Your task to perform on an android device: make emails show in primary in the gmail app Image 0: 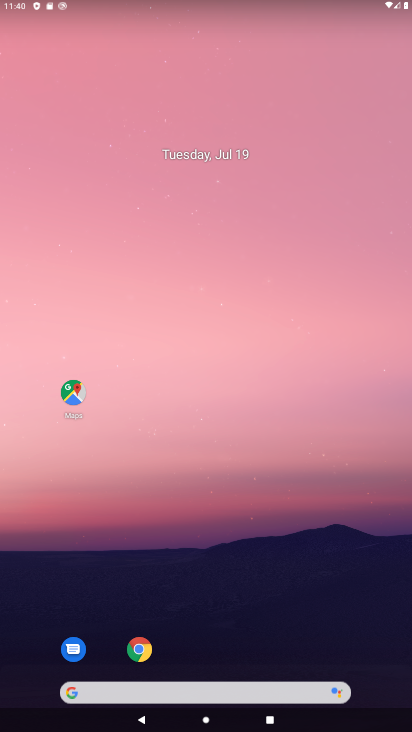
Step 0: drag from (183, 637) to (186, 66)
Your task to perform on an android device: make emails show in primary in the gmail app Image 1: 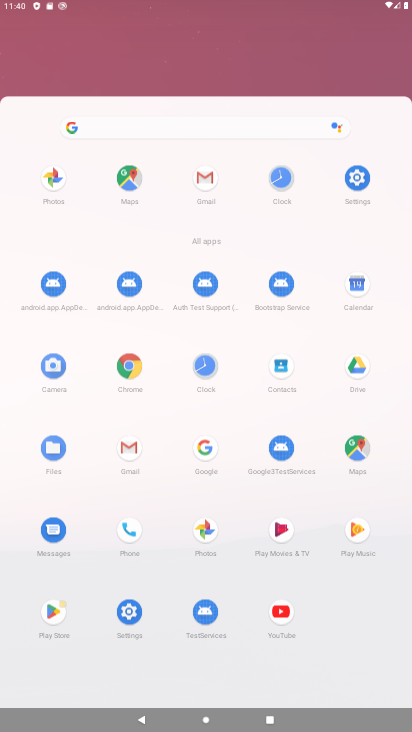
Step 1: drag from (242, 517) to (178, 16)
Your task to perform on an android device: make emails show in primary in the gmail app Image 2: 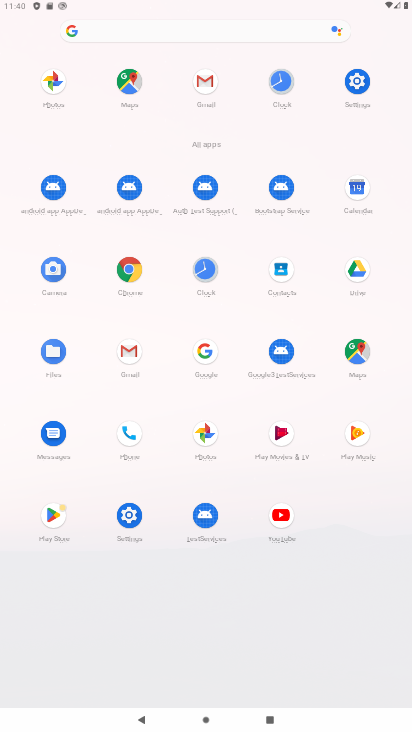
Step 2: click (347, 77)
Your task to perform on an android device: make emails show in primary in the gmail app Image 3: 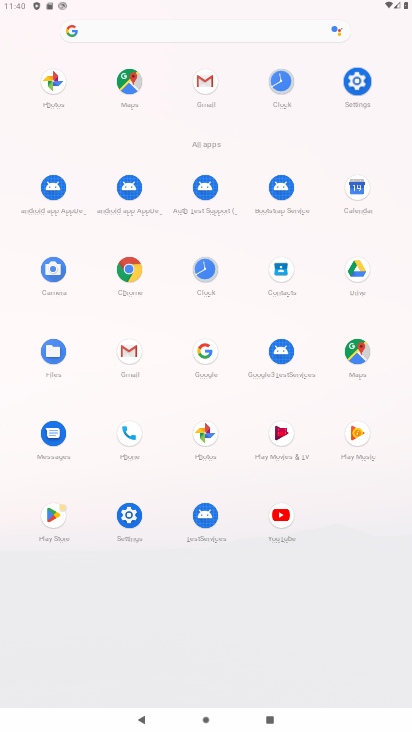
Step 3: click (352, 80)
Your task to perform on an android device: make emails show in primary in the gmail app Image 4: 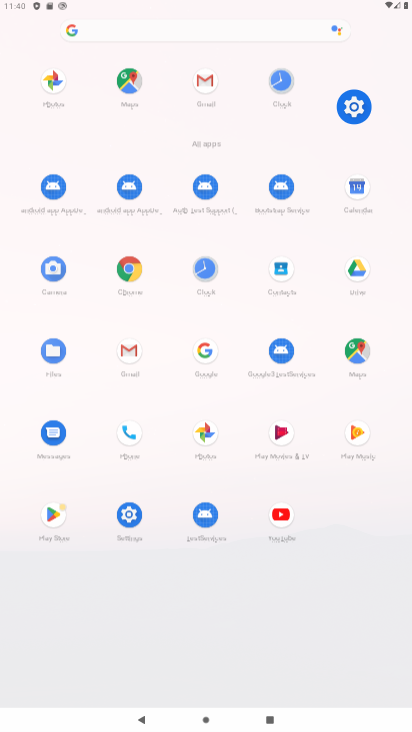
Step 4: click (352, 81)
Your task to perform on an android device: make emails show in primary in the gmail app Image 5: 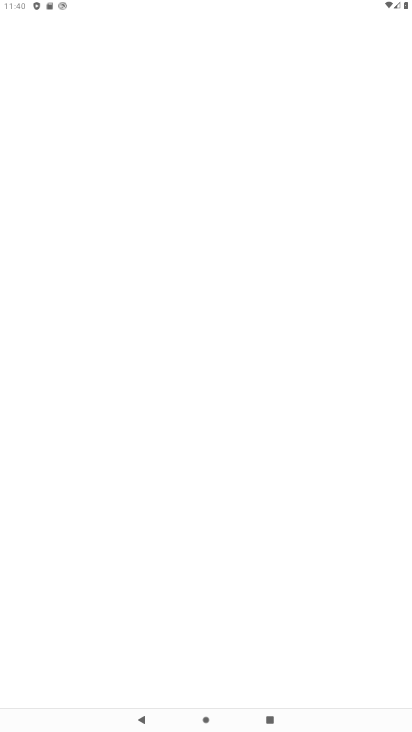
Step 5: click (355, 85)
Your task to perform on an android device: make emails show in primary in the gmail app Image 6: 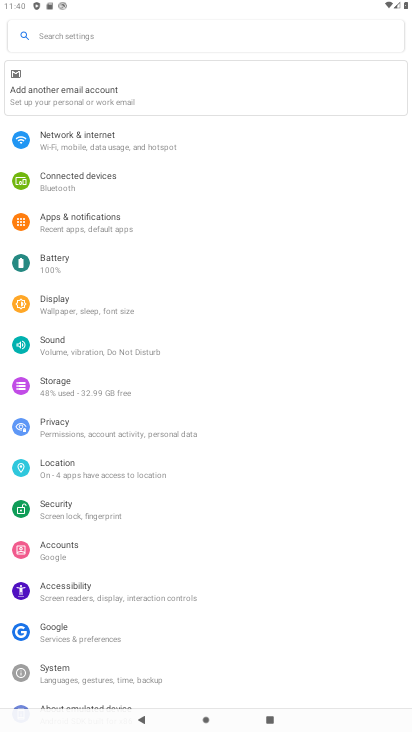
Step 6: click (64, 310)
Your task to perform on an android device: make emails show in primary in the gmail app Image 7: 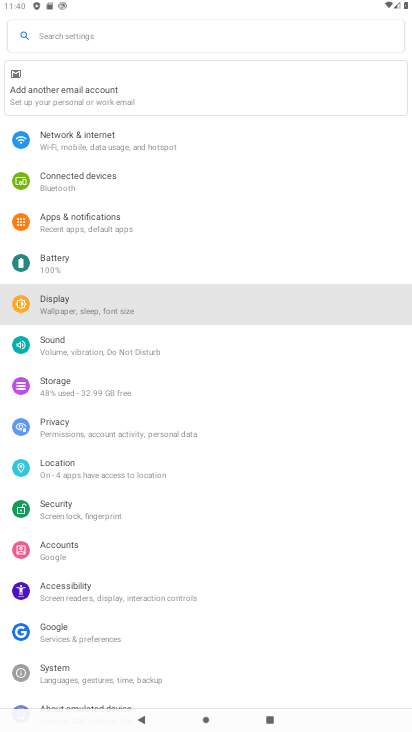
Step 7: click (65, 309)
Your task to perform on an android device: make emails show in primary in the gmail app Image 8: 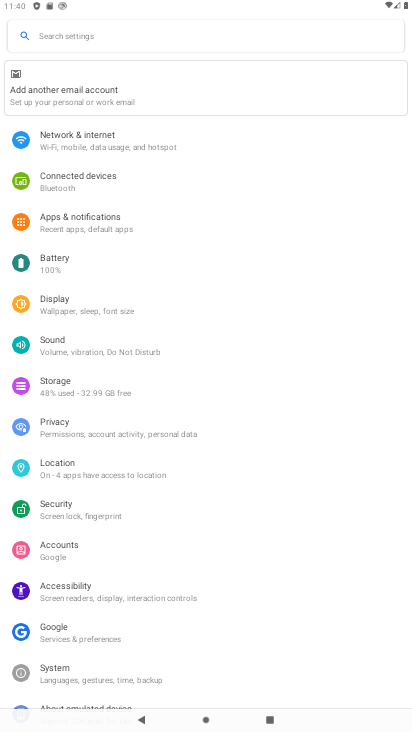
Step 8: click (65, 309)
Your task to perform on an android device: make emails show in primary in the gmail app Image 9: 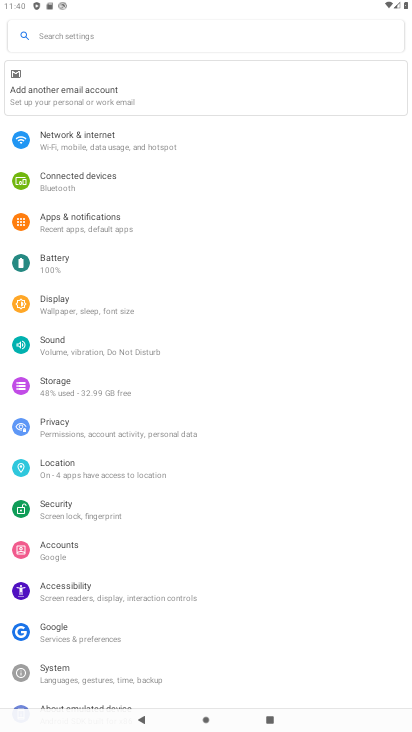
Step 9: click (63, 308)
Your task to perform on an android device: make emails show in primary in the gmail app Image 10: 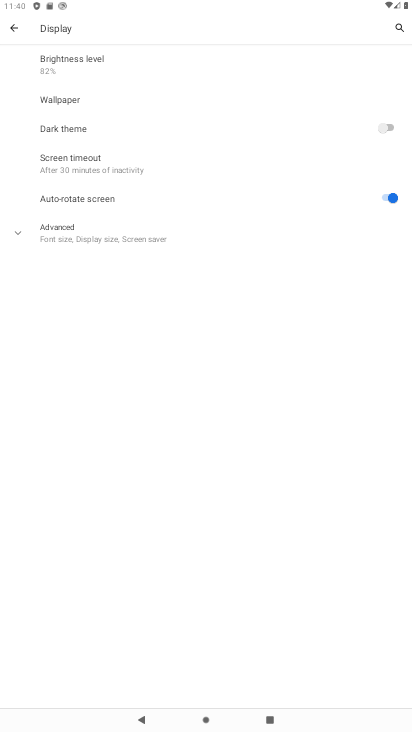
Step 10: click (54, 232)
Your task to perform on an android device: make emails show in primary in the gmail app Image 11: 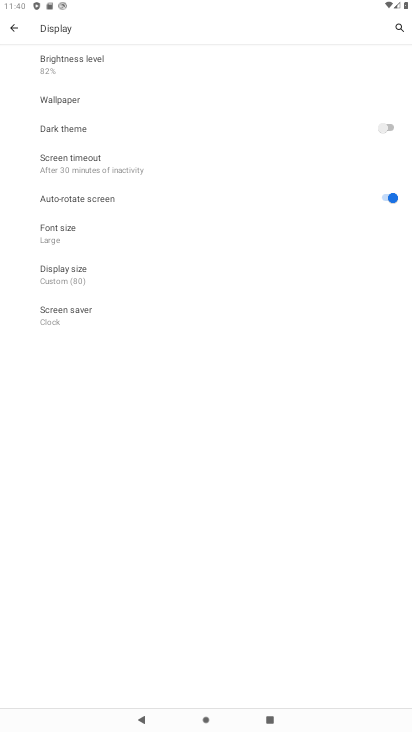
Step 11: click (54, 229)
Your task to perform on an android device: make emails show in primary in the gmail app Image 12: 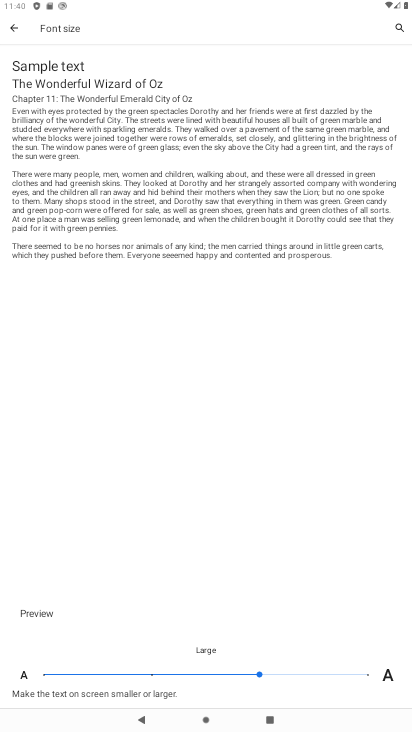
Step 12: click (367, 677)
Your task to perform on an android device: make emails show in primary in the gmail app Image 13: 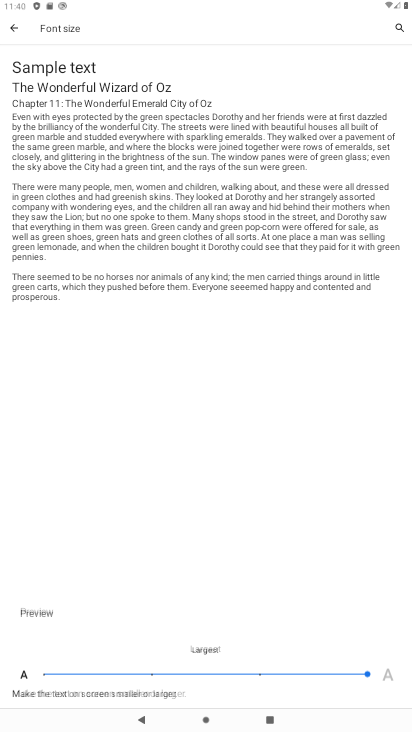
Step 13: click (367, 677)
Your task to perform on an android device: make emails show in primary in the gmail app Image 14: 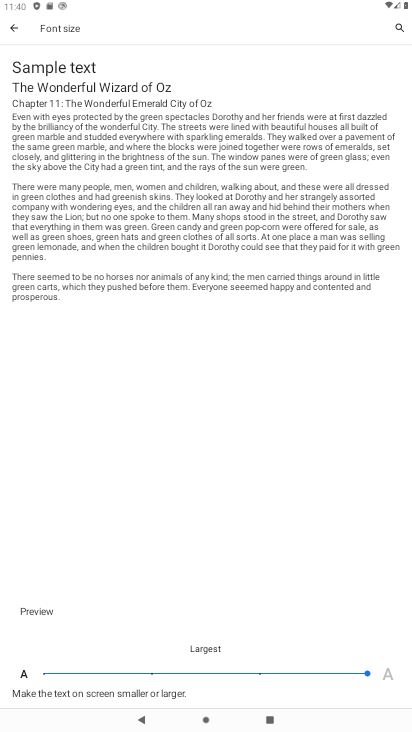
Step 14: click (367, 677)
Your task to perform on an android device: make emails show in primary in the gmail app Image 15: 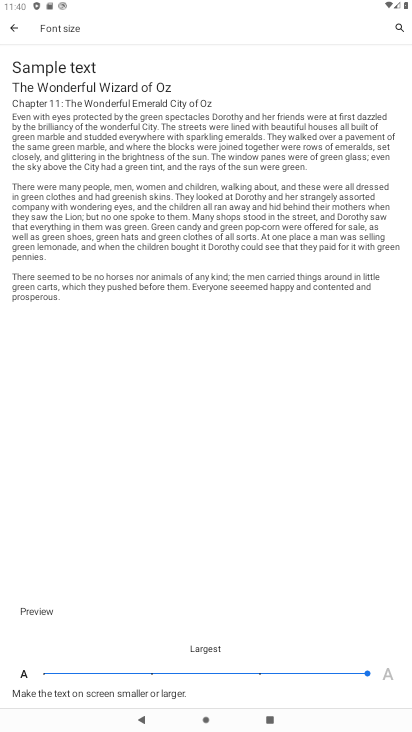
Step 15: click (367, 677)
Your task to perform on an android device: make emails show in primary in the gmail app Image 16: 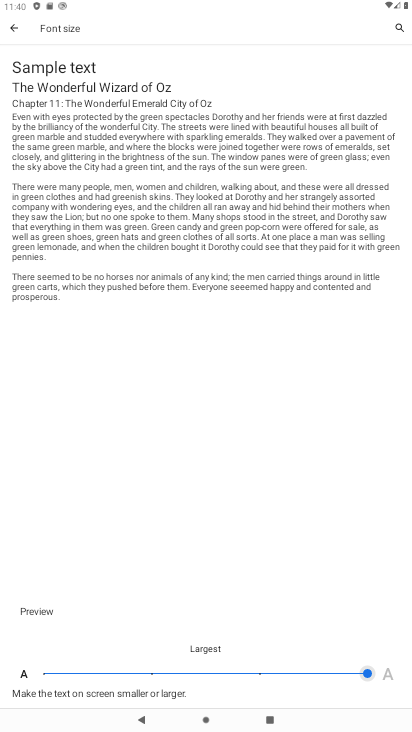
Step 16: click (360, 668)
Your task to perform on an android device: make emails show in primary in the gmail app Image 17: 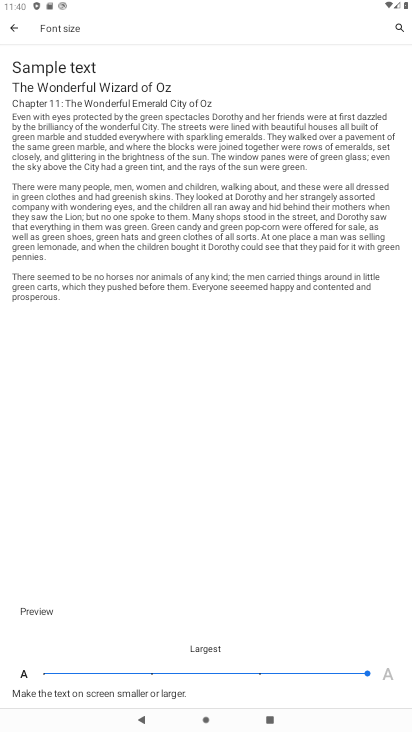
Step 17: click (368, 674)
Your task to perform on an android device: make emails show in primary in the gmail app Image 18: 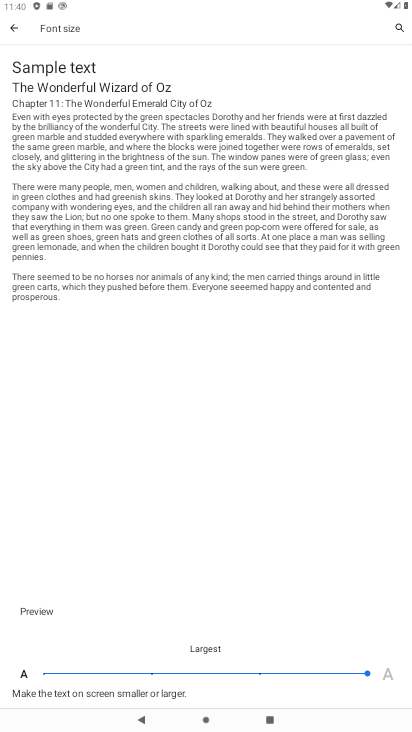
Step 18: click (368, 674)
Your task to perform on an android device: make emails show in primary in the gmail app Image 19: 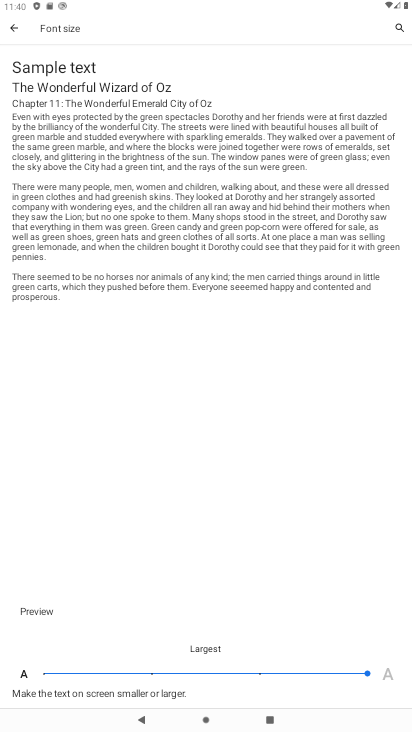
Step 19: click (368, 674)
Your task to perform on an android device: make emails show in primary in the gmail app Image 20: 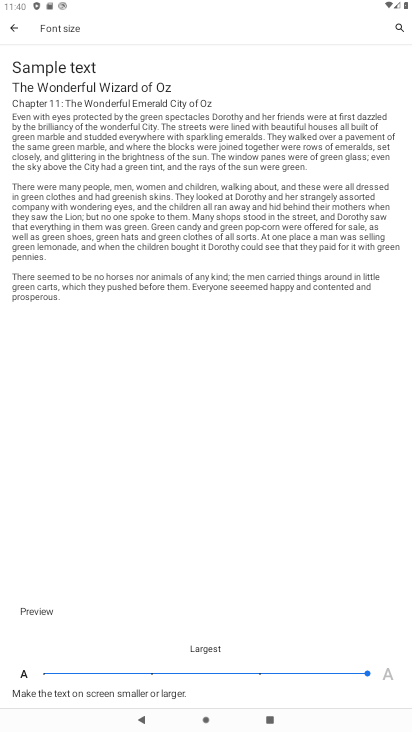
Step 20: click (370, 673)
Your task to perform on an android device: make emails show in primary in the gmail app Image 21: 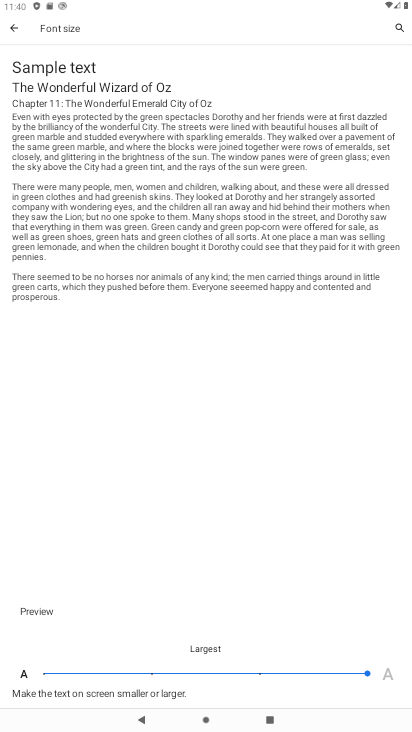
Step 21: click (383, 673)
Your task to perform on an android device: make emails show in primary in the gmail app Image 22: 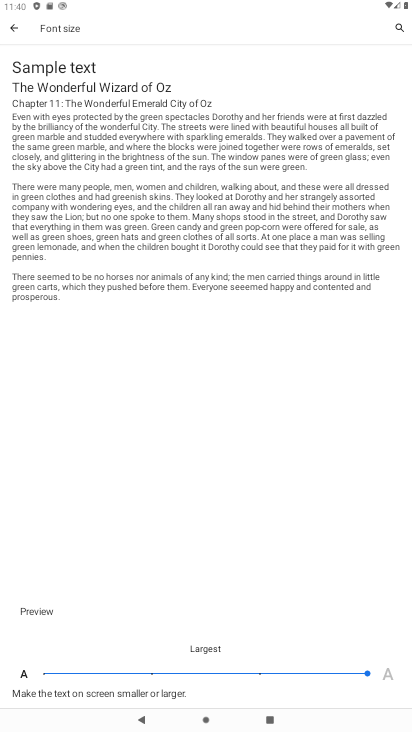
Step 22: click (9, 28)
Your task to perform on an android device: make emails show in primary in the gmail app Image 23: 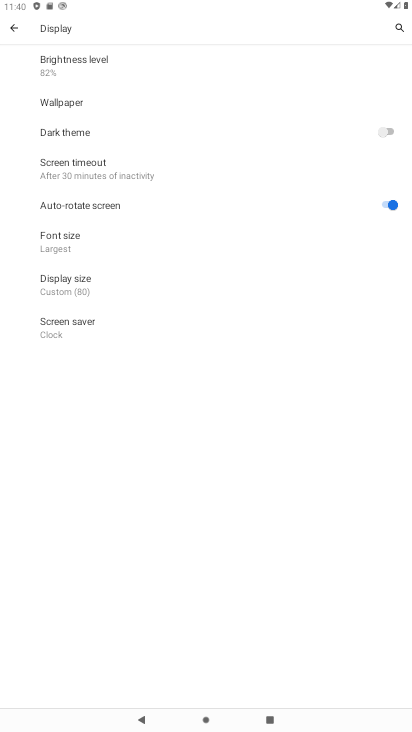
Step 23: click (11, 23)
Your task to perform on an android device: make emails show in primary in the gmail app Image 24: 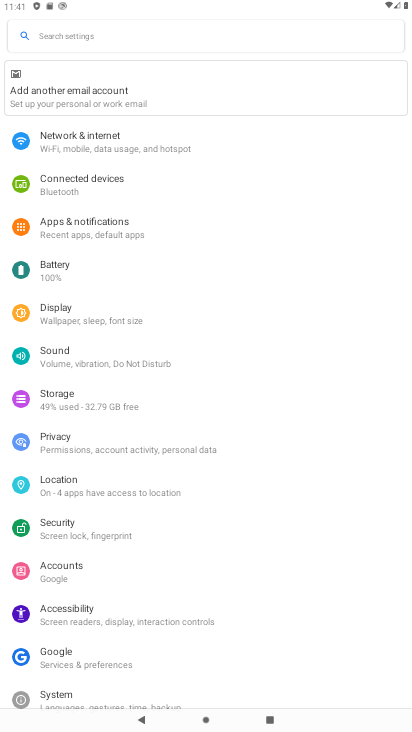
Step 24: press back button
Your task to perform on an android device: make emails show in primary in the gmail app Image 25: 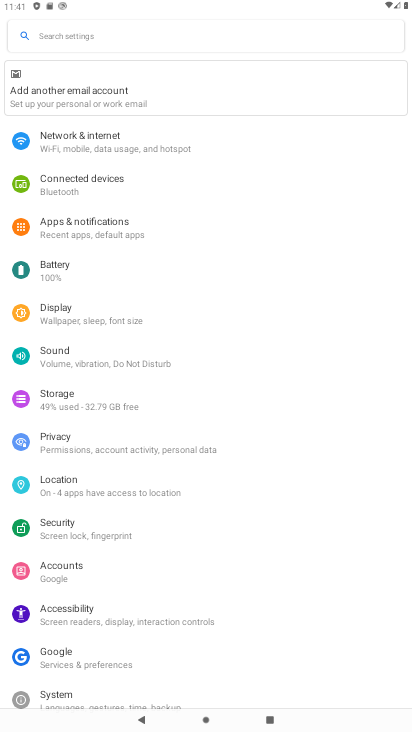
Step 25: press back button
Your task to perform on an android device: make emails show in primary in the gmail app Image 26: 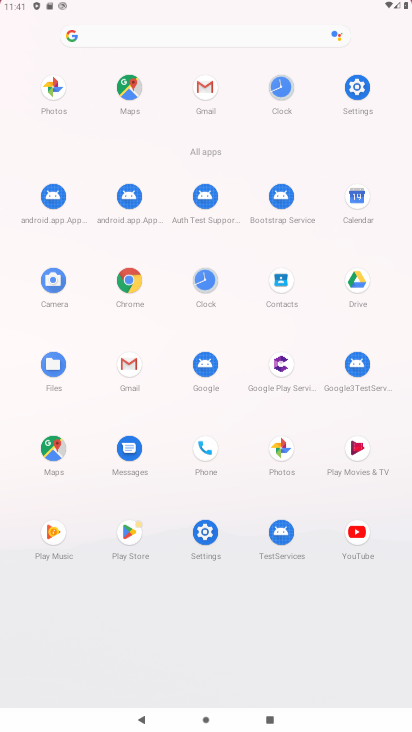
Step 26: press back button
Your task to perform on an android device: make emails show in primary in the gmail app Image 27: 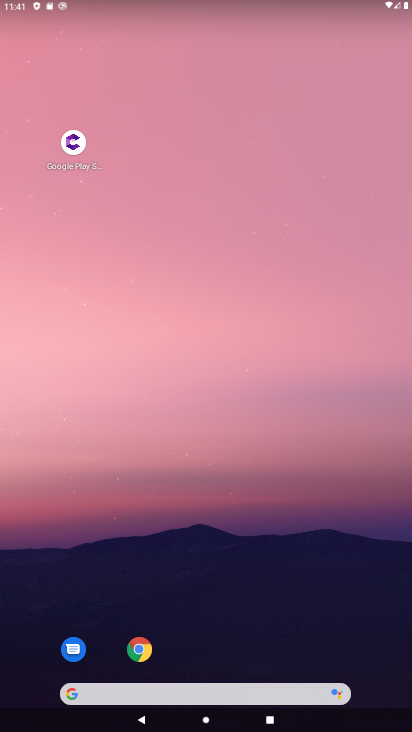
Step 27: press back button
Your task to perform on an android device: make emails show in primary in the gmail app Image 28: 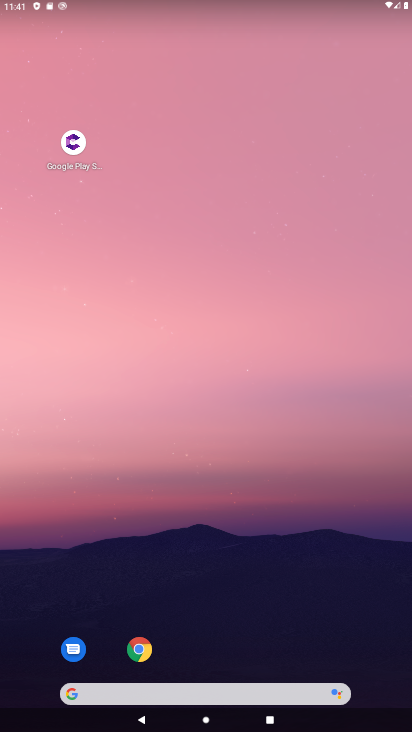
Step 28: drag from (203, 648) to (164, 277)
Your task to perform on an android device: make emails show in primary in the gmail app Image 29: 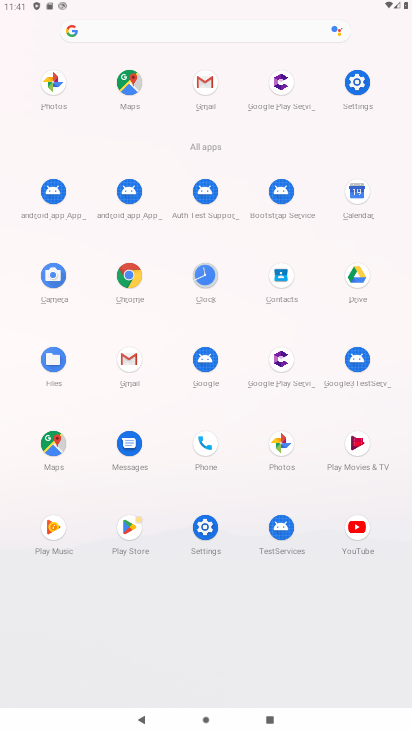
Step 29: click (128, 359)
Your task to perform on an android device: make emails show in primary in the gmail app Image 30: 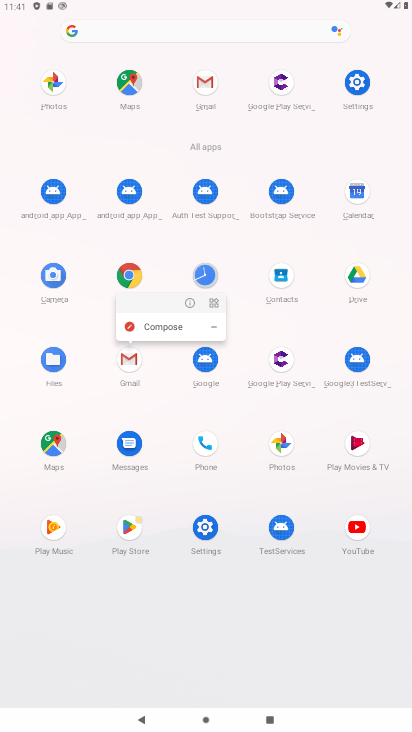
Step 30: click (128, 359)
Your task to perform on an android device: make emails show in primary in the gmail app Image 31: 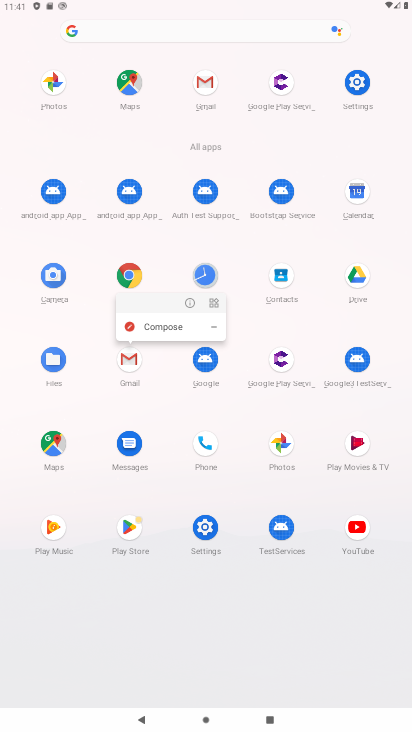
Step 31: click (132, 359)
Your task to perform on an android device: make emails show in primary in the gmail app Image 32: 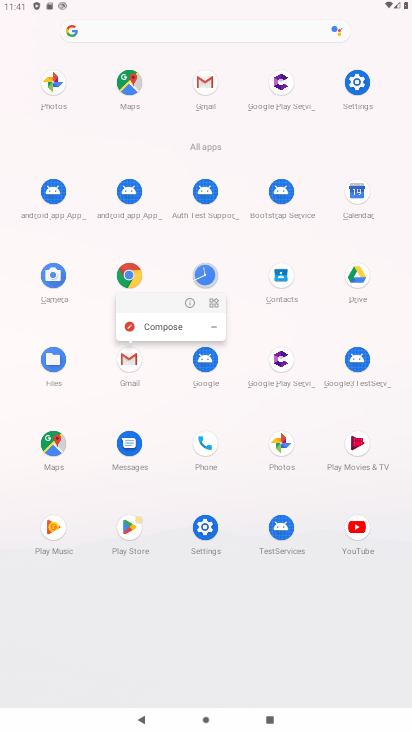
Step 32: click (126, 356)
Your task to perform on an android device: make emails show in primary in the gmail app Image 33: 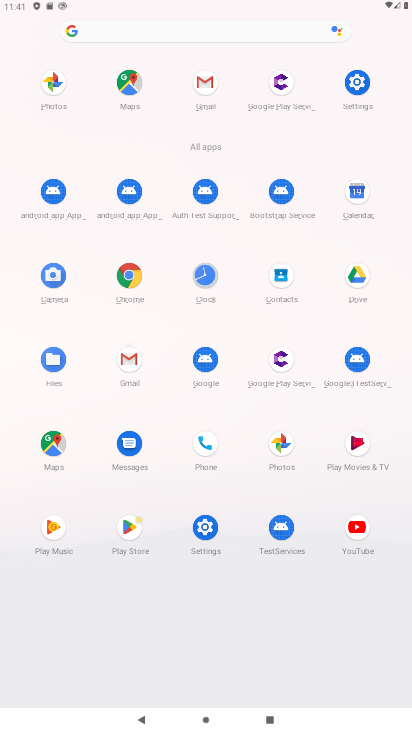
Step 33: click (125, 357)
Your task to perform on an android device: make emails show in primary in the gmail app Image 34: 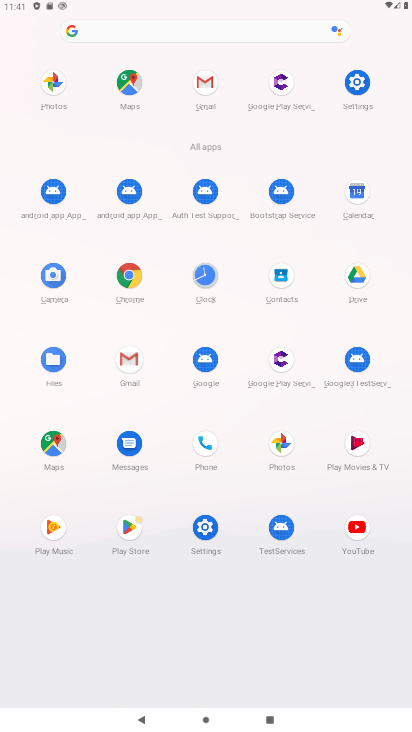
Step 34: click (129, 358)
Your task to perform on an android device: make emails show in primary in the gmail app Image 35: 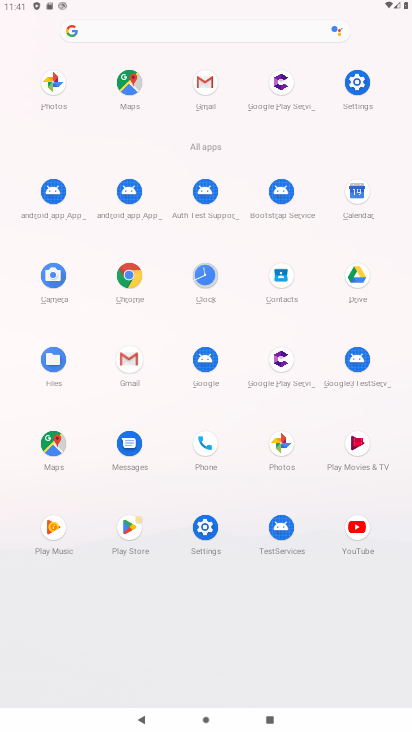
Step 35: click (131, 360)
Your task to perform on an android device: make emails show in primary in the gmail app Image 36: 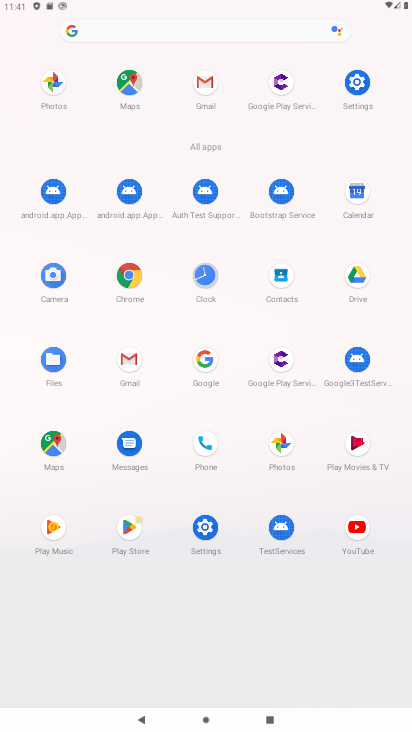
Step 36: click (131, 361)
Your task to perform on an android device: make emails show in primary in the gmail app Image 37: 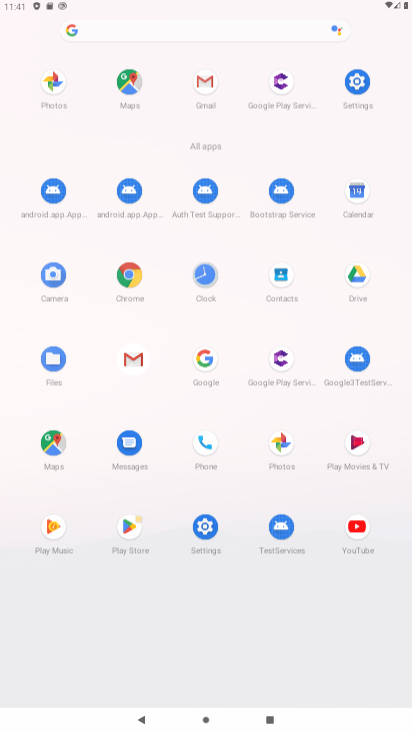
Step 37: click (133, 361)
Your task to perform on an android device: make emails show in primary in the gmail app Image 38: 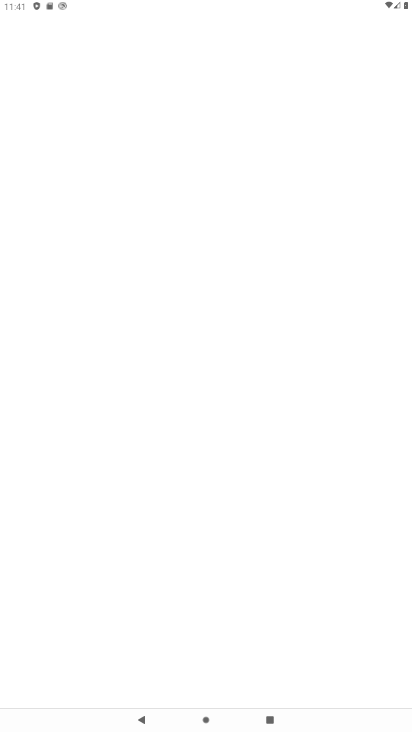
Step 38: click (133, 361)
Your task to perform on an android device: make emails show in primary in the gmail app Image 39: 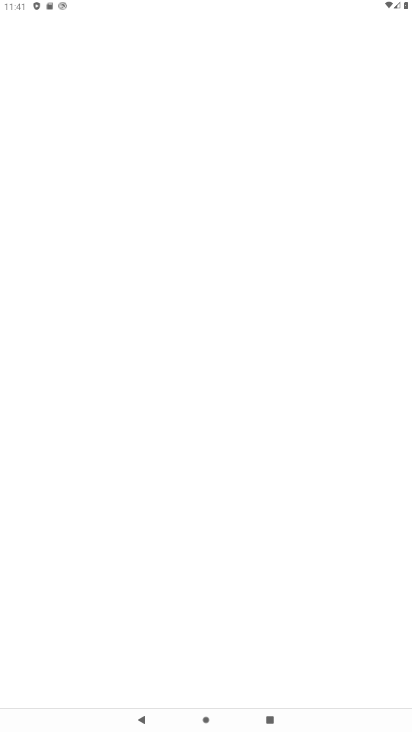
Step 39: click (133, 361)
Your task to perform on an android device: make emails show in primary in the gmail app Image 40: 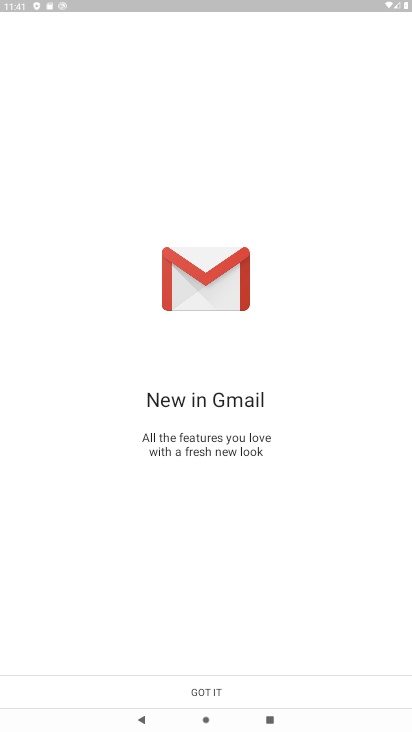
Step 40: click (230, 685)
Your task to perform on an android device: make emails show in primary in the gmail app Image 41: 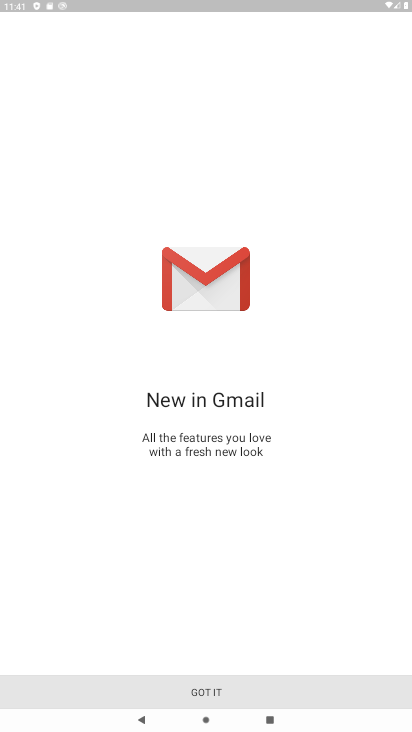
Step 41: click (230, 685)
Your task to perform on an android device: make emails show in primary in the gmail app Image 42: 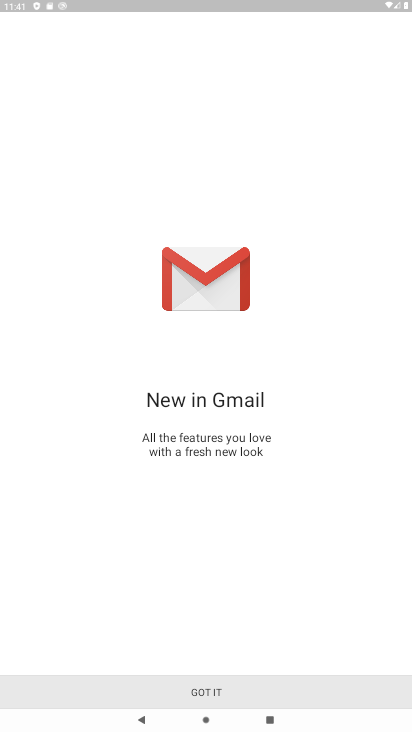
Step 42: click (230, 685)
Your task to perform on an android device: make emails show in primary in the gmail app Image 43: 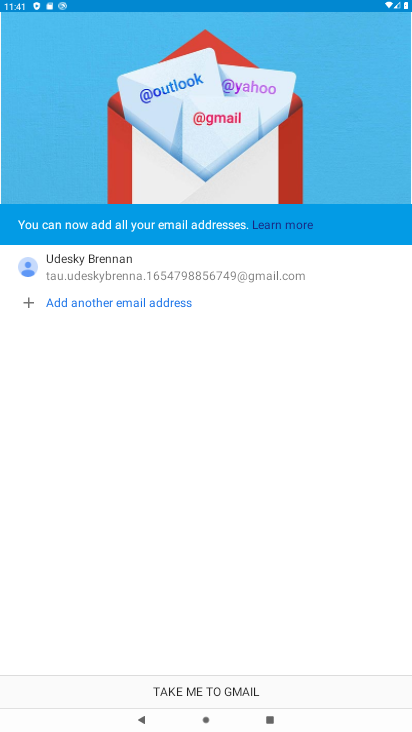
Step 43: click (246, 685)
Your task to perform on an android device: make emails show in primary in the gmail app Image 44: 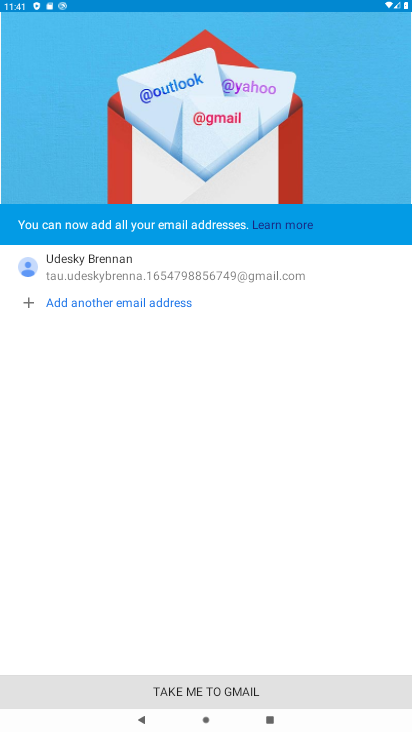
Step 44: click (244, 685)
Your task to perform on an android device: make emails show in primary in the gmail app Image 45: 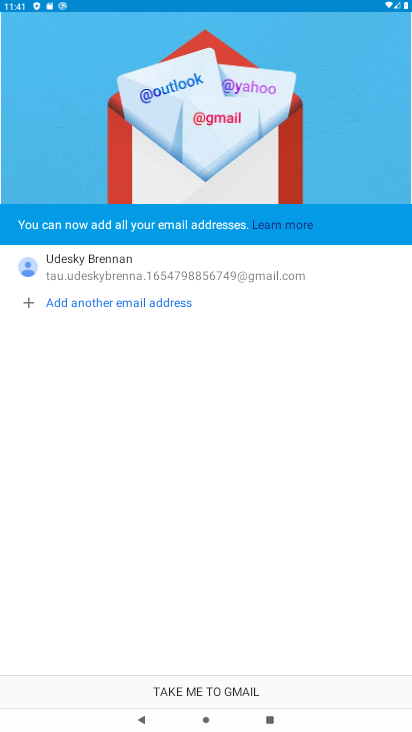
Step 45: click (247, 686)
Your task to perform on an android device: make emails show in primary in the gmail app Image 46: 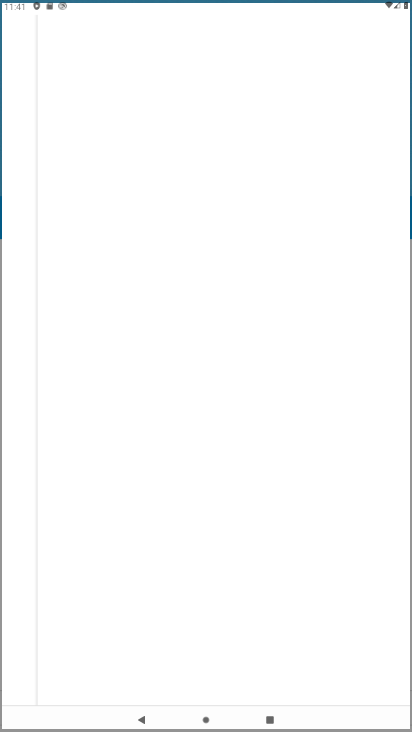
Step 46: click (250, 685)
Your task to perform on an android device: make emails show in primary in the gmail app Image 47: 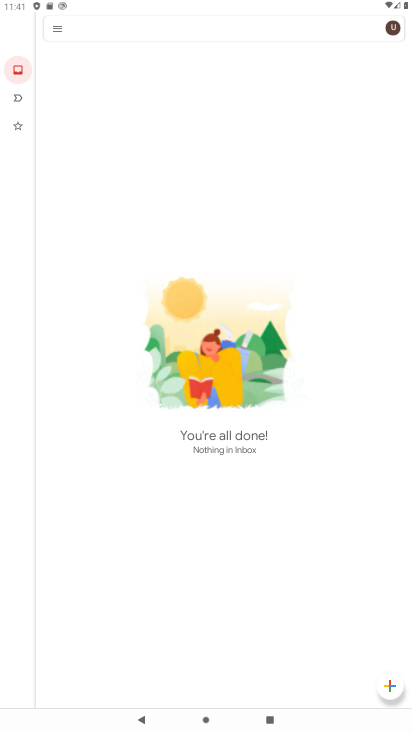
Step 47: click (64, 29)
Your task to perform on an android device: make emails show in primary in the gmail app Image 48: 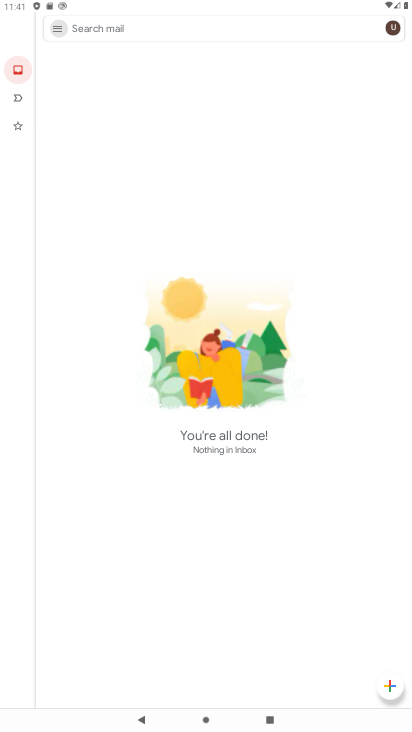
Step 48: click (64, 23)
Your task to perform on an android device: make emails show in primary in the gmail app Image 49: 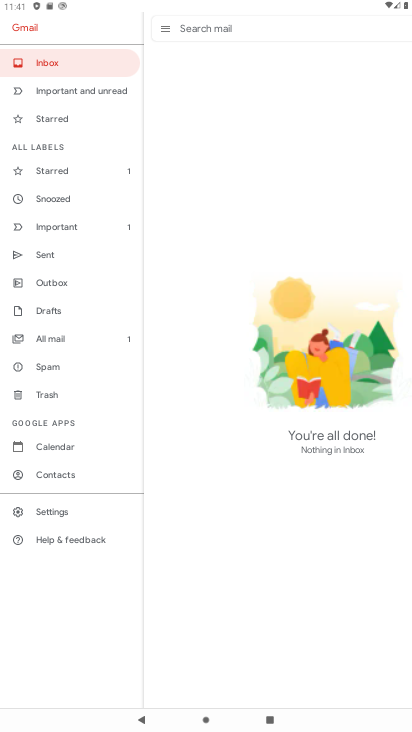
Step 49: click (41, 506)
Your task to perform on an android device: make emails show in primary in the gmail app Image 50: 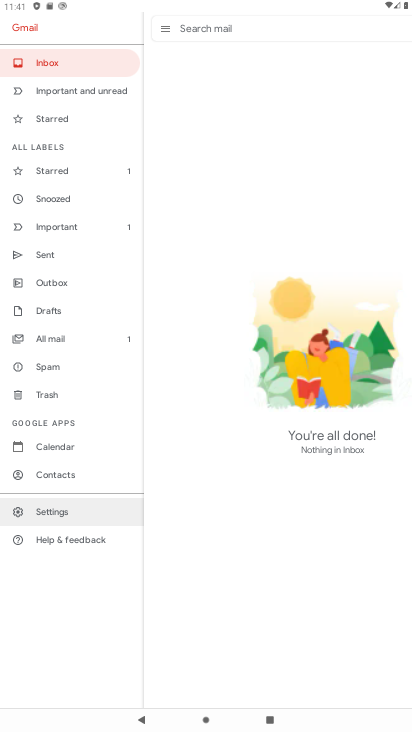
Step 50: click (47, 506)
Your task to perform on an android device: make emails show in primary in the gmail app Image 51: 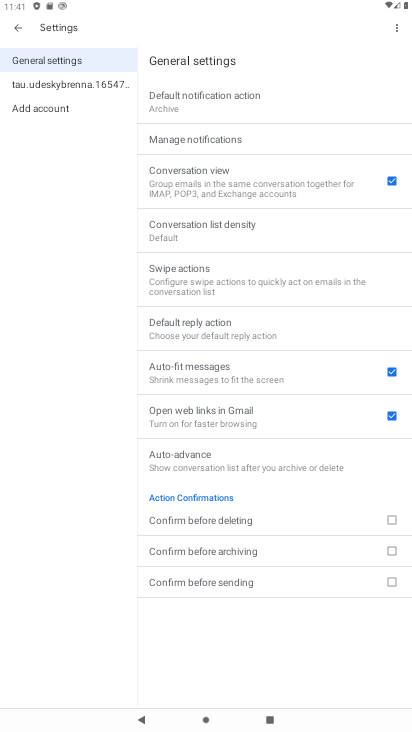
Step 51: click (58, 79)
Your task to perform on an android device: make emails show in primary in the gmail app Image 52: 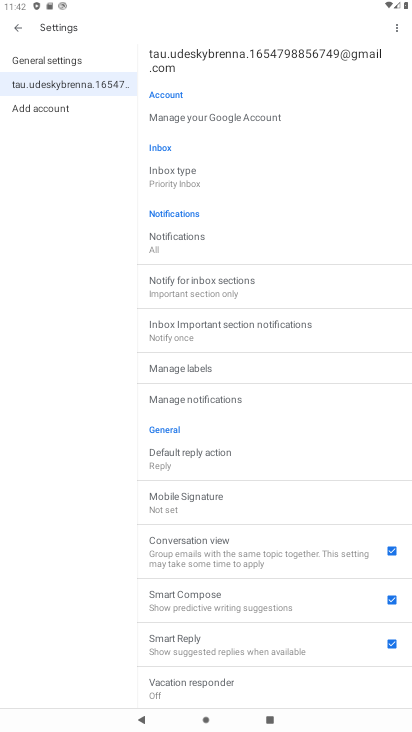
Step 52: click (184, 181)
Your task to perform on an android device: make emails show in primary in the gmail app Image 53: 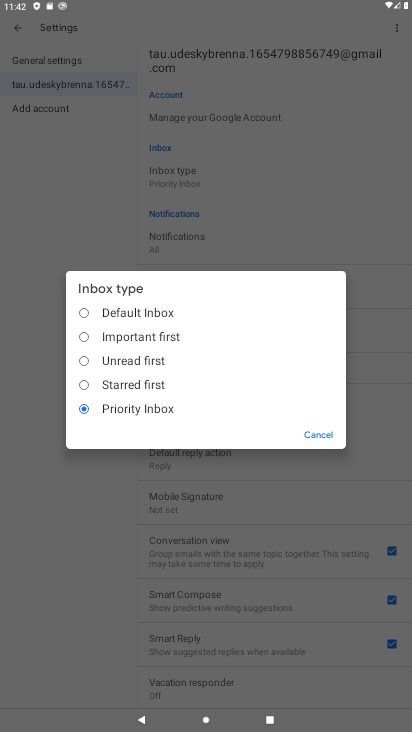
Step 53: click (83, 312)
Your task to perform on an android device: make emails show in primary in the gmail app Image 54: 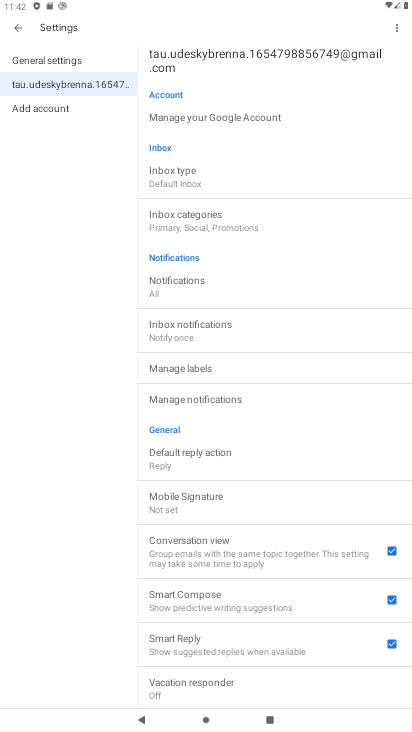
Step 54: task complete